Your task to perform on an android device: turn smart compose on in the gmail app Image 0: 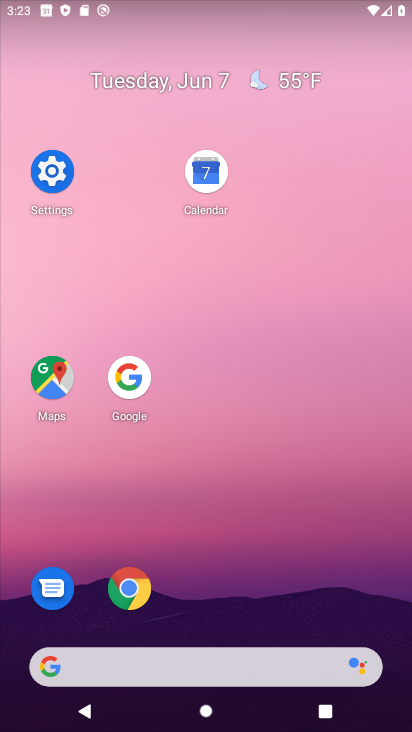
Step 0: drag from (259, 550) to (261, 77)
Your task to perform on an android device: turn smart compose on in the gmail app Image 1: 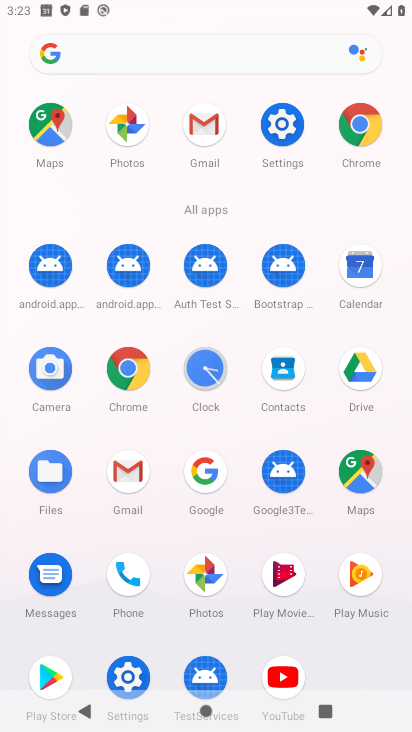
Step 1: click (215, 137)
Your task to perform on an android device: turn smart compose on in the gmail app Image 2: 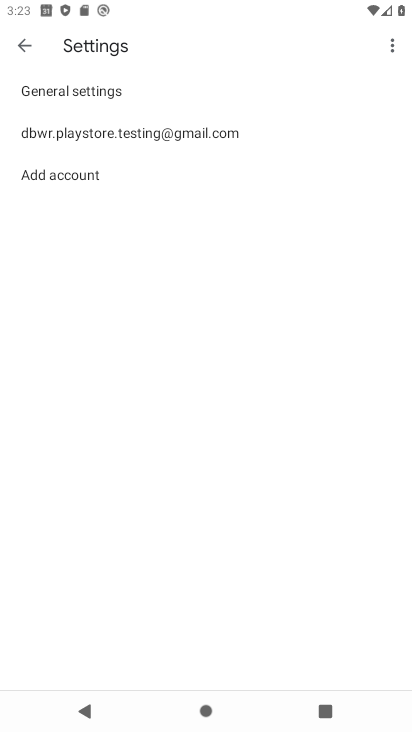
Step 2: press home button
Your task to perform on an android device: turn smart compose on in the gmail app Image 3: 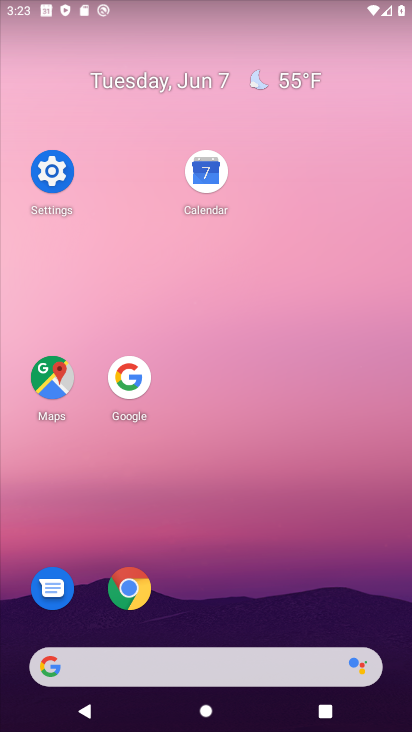
Step 3: drag from (252, 568) to (293, 49)
Your task to perform on an android device: turn smart compose on in the gmail app Image 4: 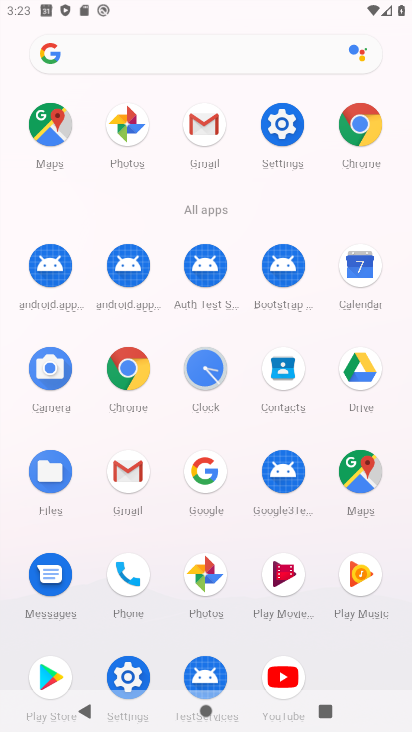
Step 4: click (217, 137)
Your task to perform on an android device: turn smart compose on in the gmail app Image 5: 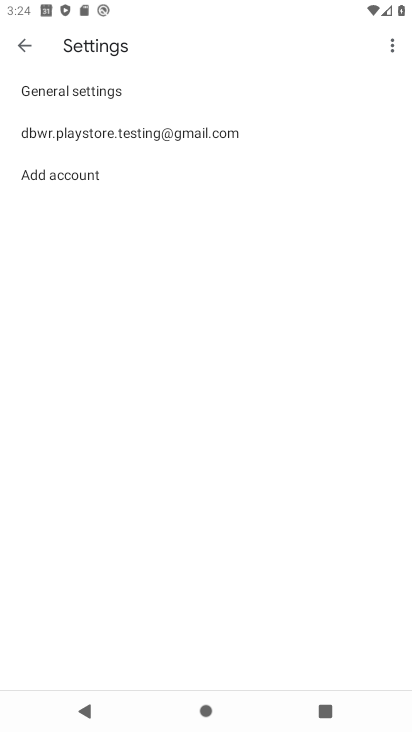
Step 5: click (66, 126)
Your task to perform on an android device: turn smart compose on in the gmail app Image 6: 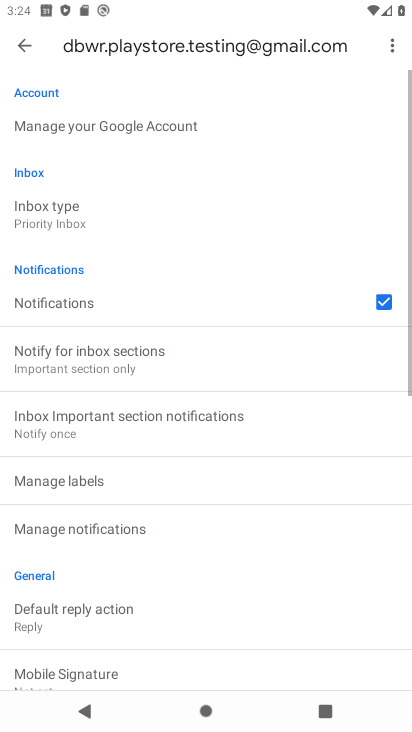
Step 6: task complete